Your task to perform on an android device: toggle data saver in the chrome app Image 0: 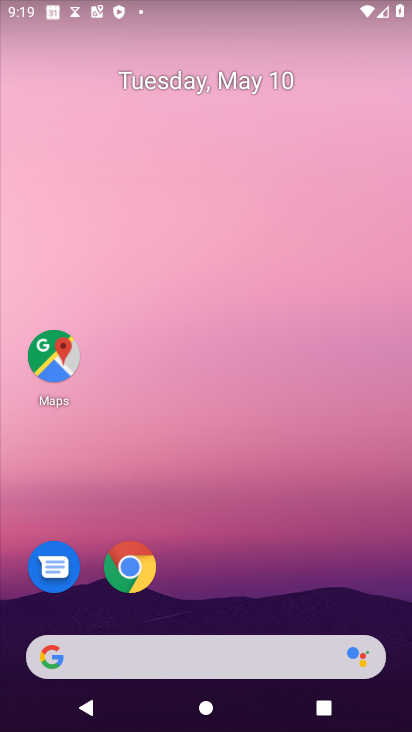
Step 0: press home button
Your task to perform on an android device: toggle data saver in the chrome app Image 1: 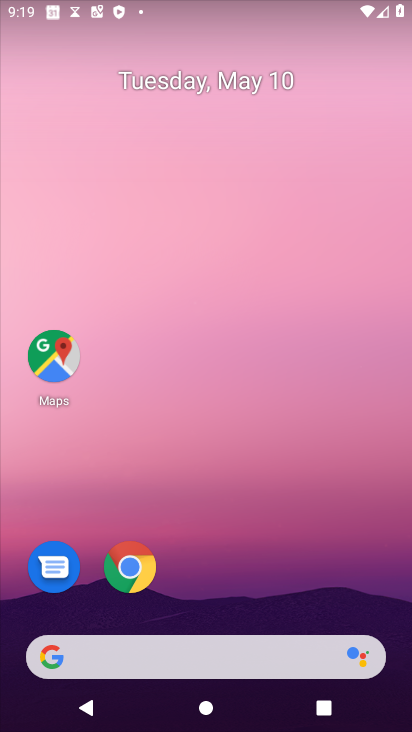
Step 1: click (136, 567)
Your task to perform on an android device: toggle data saver in the chrome app Image 2: 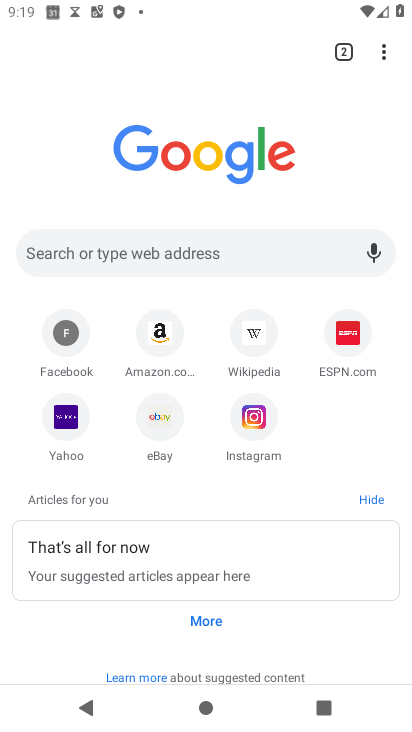
Step 2: click (372, 58)
Your task to perform on an android device: toggle data saver in the chrome app Image 3: 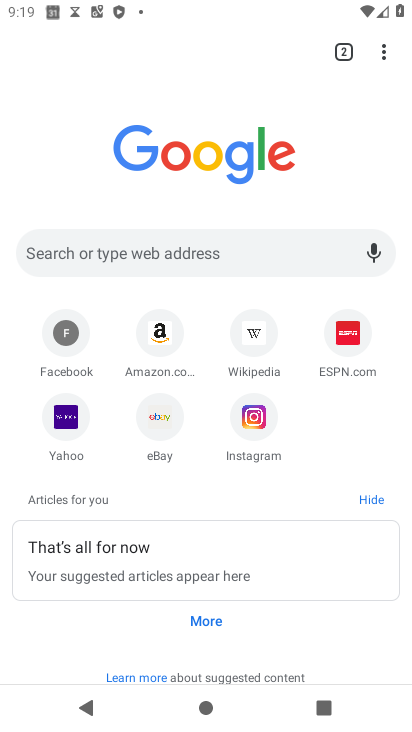
Step 3: click (370, 49)
Your task to perform on an android device: toggle data saver in the chrome app Image 4: 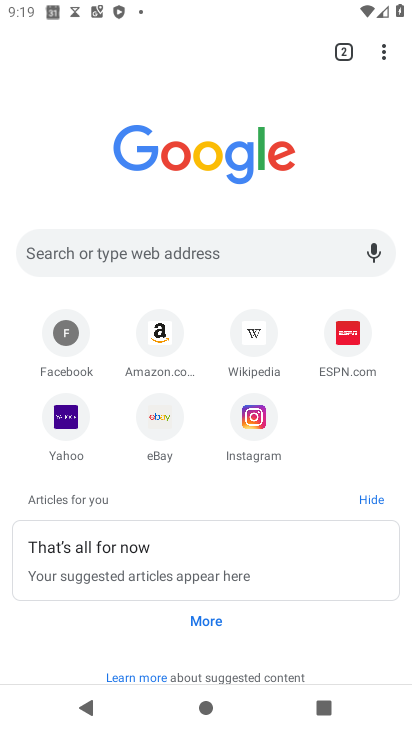
Step 4: click (380, 53)
Your task to perform on an android device: toggle data saver in the chrome app Image 5: 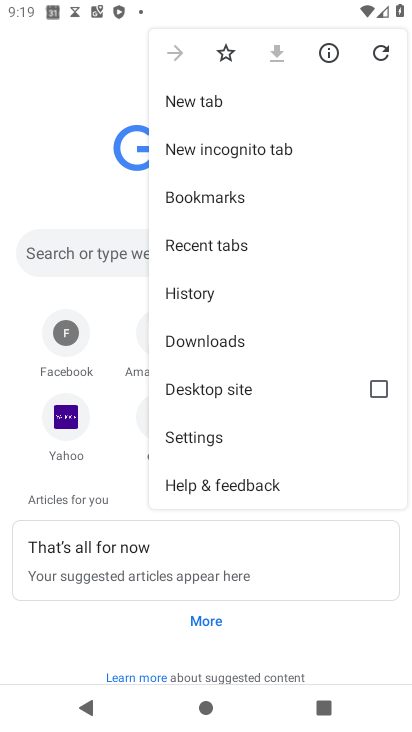
Step 5: click (235, 430)
Your task to perform on an android device: toggle data saver in the chrome app Image 6: 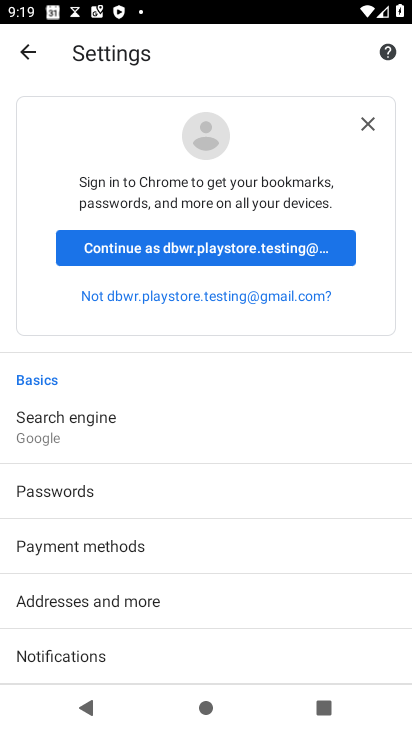
Step 6: drag from (45, 662) to (222, 276)
Your task to perform on an android device: toggle data saver in the chrome app Image 7: 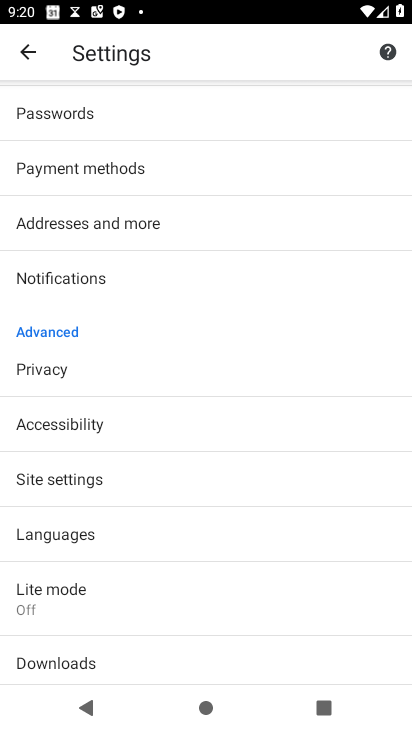
Step 7: click (70, 606)
Your task to perform on an android device: toggle data saver in the chrome app Image 8: 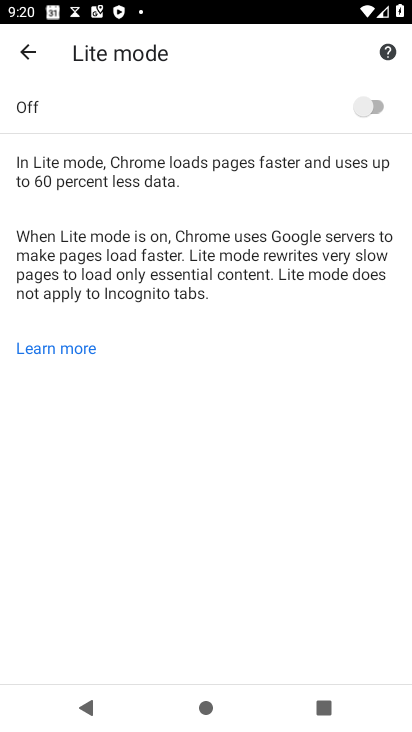
Step 8: click (370, 103)
Your task to perform on an android device: toggle data saver in the chrome app Image 9: 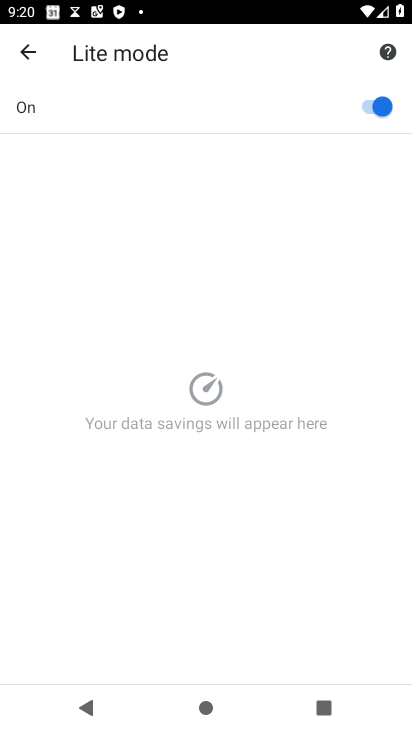
Step 9: task complete